Your task to perform on an android device: turn off notifications in google photos Image 0: 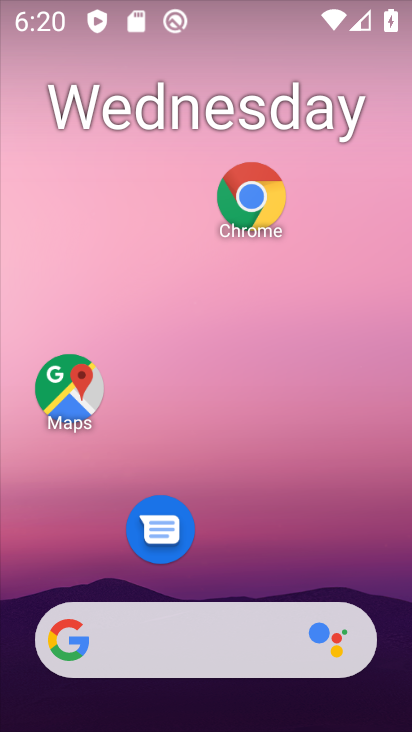
Step 0: click (258, 195)
Your task to perform on an android device: turn off notifications in google photos Image 1: 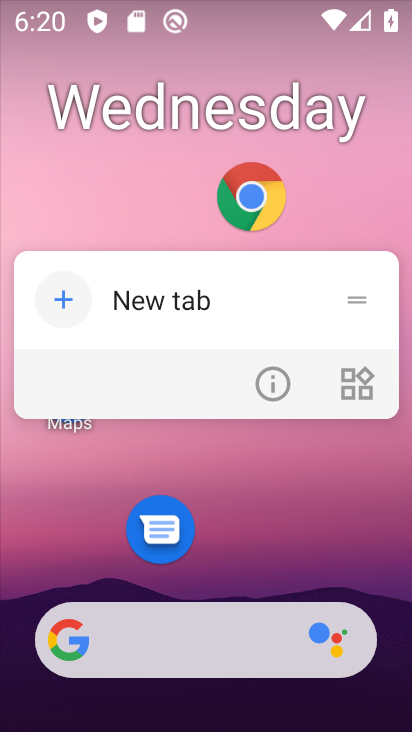
Step 1: click (258, 195)
Your task to perform on an android device: turn off notifications in google photos Image 2: 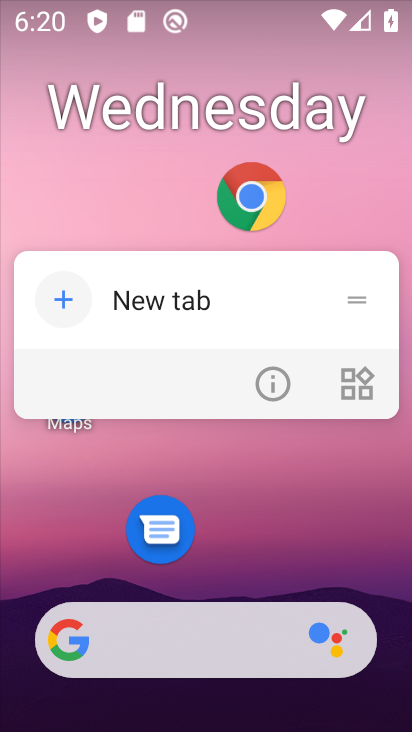
Step 2: click (253, 203)
Your task to perform on an android device: turn off notifications in google photos Image 3: 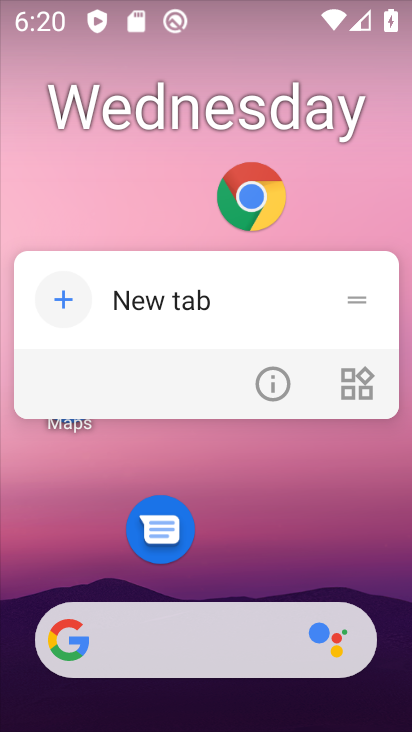
Step 3: drag from (242, 595) to (242, 126)
Your task to perform on an android device: turn off notifications in google photos Image 4: 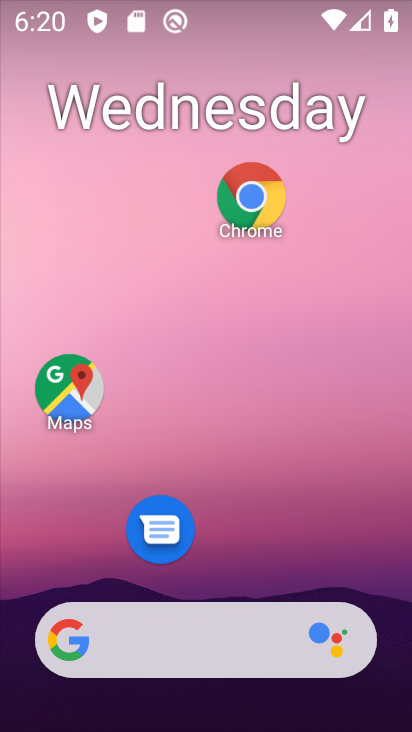
Step 4: drag from (177, 602) to (147, 235)
Your task to perform on an android device: turn off notifications in google photos Image 5: 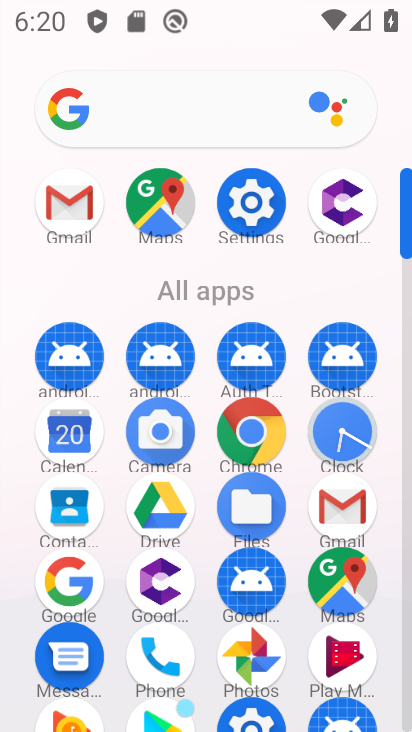
Step 5: click (242, 652)
Your task to perform on an android device: turn off notifications in google photos Image 6: 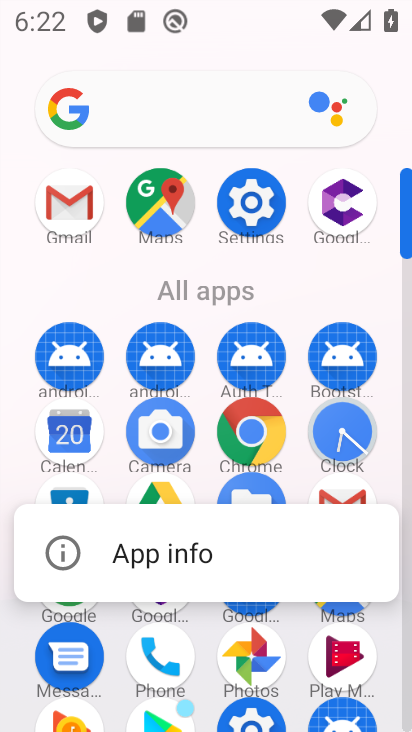
Step 6: click (244, 657)
Your task to perform on an android device: turn off notifications in google photos Image 7: 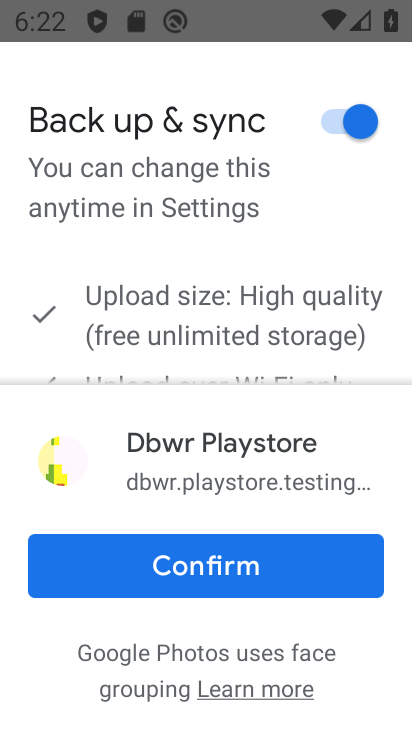
Step 7: click (190, 567)
Your task to perform on an android device: turn off notifications in google photos Image 8: 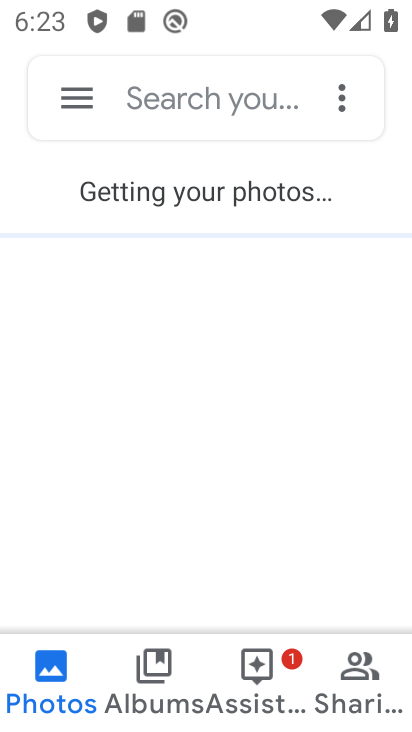
Step 8: click (88, 98)
Your task to perform on an android device: turn off notifications in google photos Image 9: 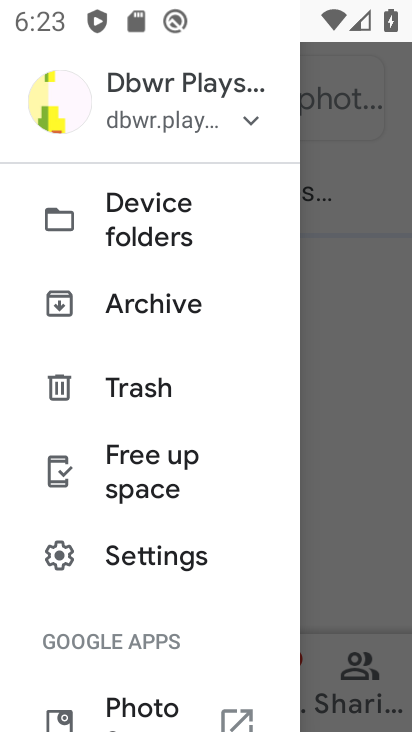
Step 9: click (128, 550)
Your task to perform on an android device: turn off notifications in google photos Image 10: 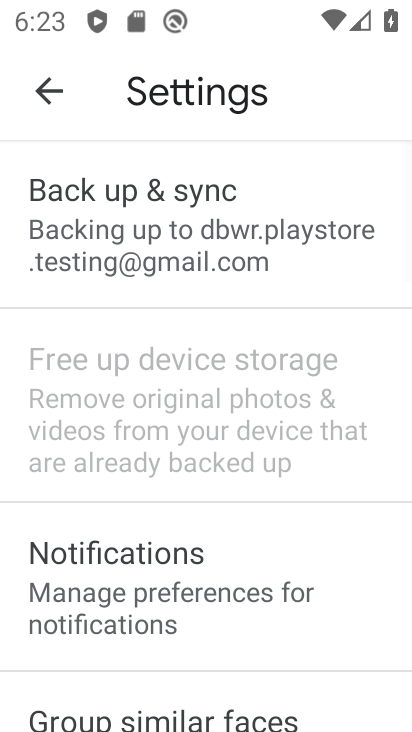
Step 10: click (150, 220)
Your task to perform on an android device: turn off notifications in google photos Image 11: 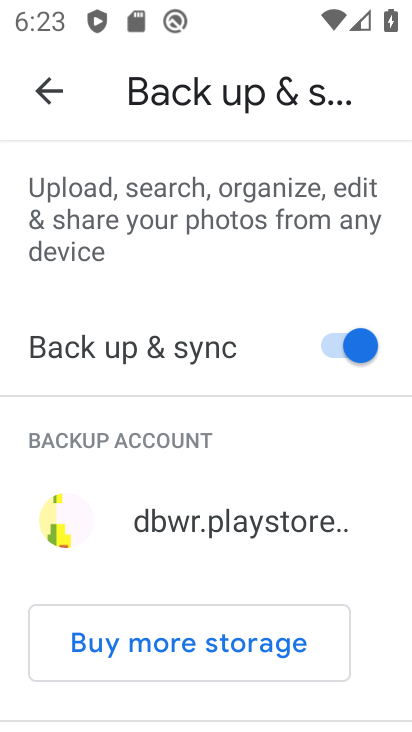
Step 11: click (31, 100)
Your task to perform on an android device: turn off notifications in google photos Image 12: 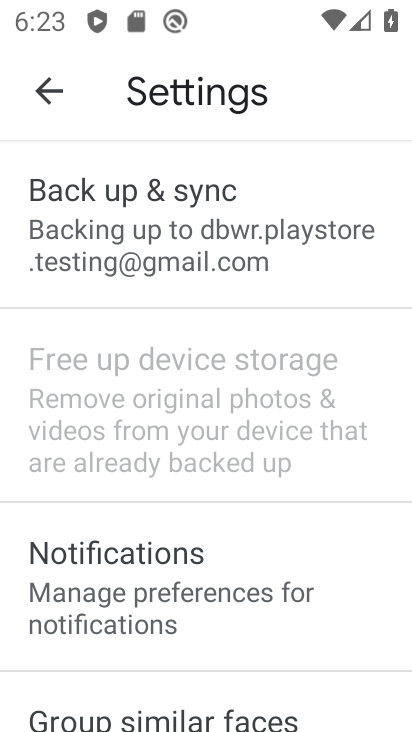
Step 12: click (178, 559)
Your task to perform on an android device: turn off notifications in google photos Image 13: 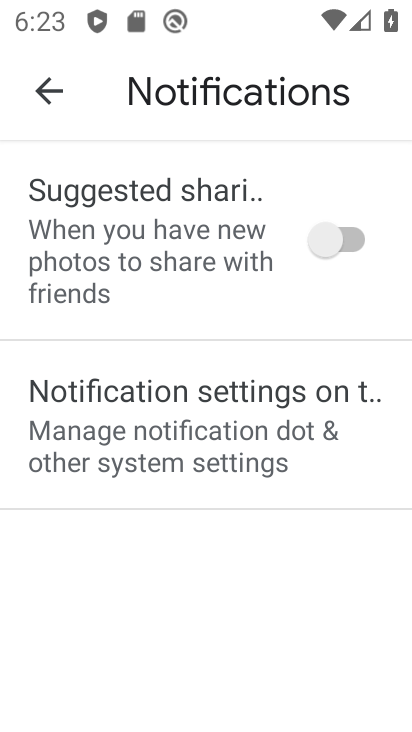
Step 13: click (340, 241)
Your task to perform on an android device: turn off notifications in google photos Image 14: 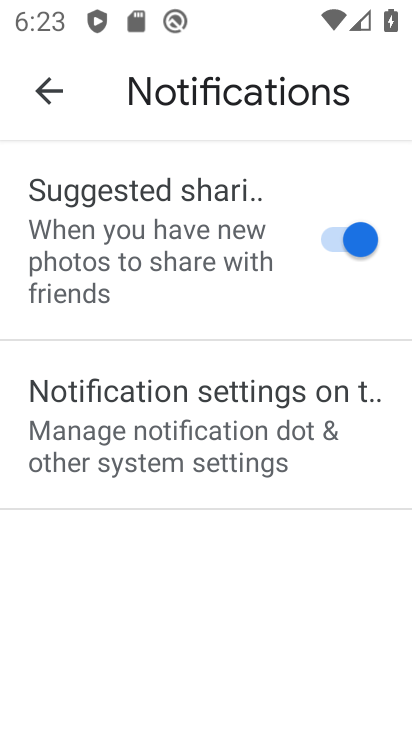
Step 14: click (225, 381)
Your task to perform on an android device: turn off notifications in google photos Image 15: 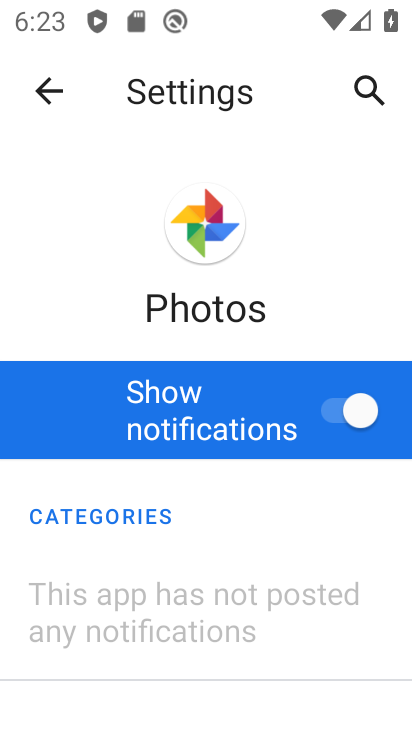
Step 15: click (334, 405)
Your task to perform on an android device: turn off notifications in google photos Image 16: 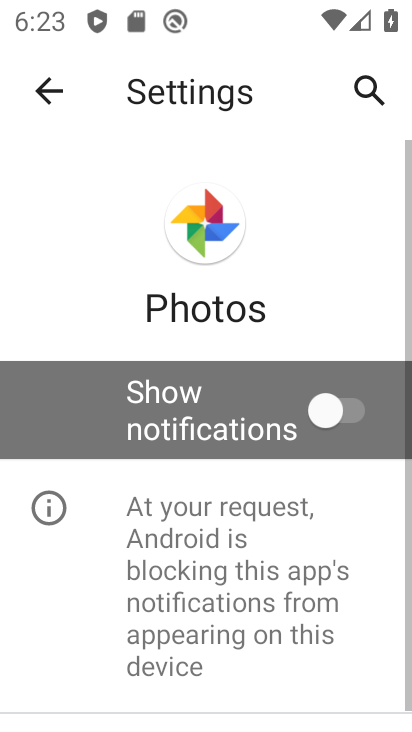
Step 16: task complete